Your task to perform on an android device: Go to battery settings Image 0: 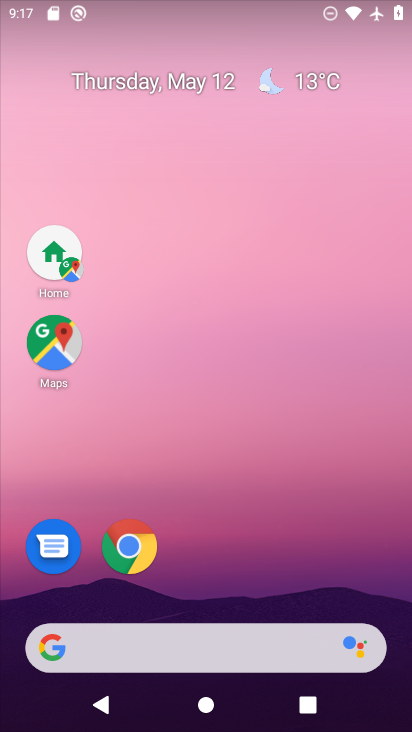
Step 0: drag from (207, 650) to (411, 83)
Your task to perform on an android device: Go to battery settings Image 1: 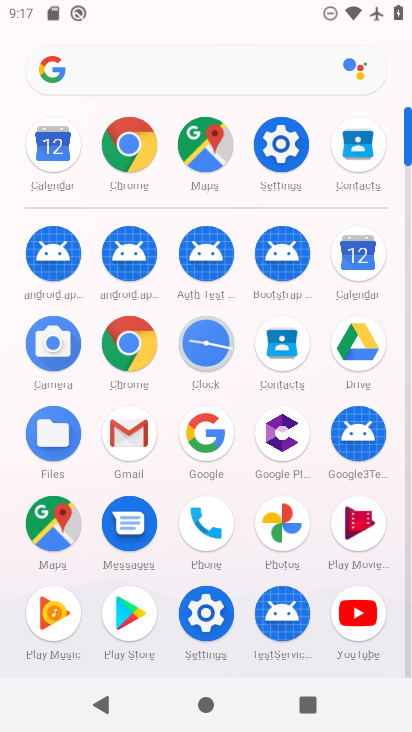
Step 1: click (279, 154)
Your task to perform on an android device: Go to battery settings Image 2: 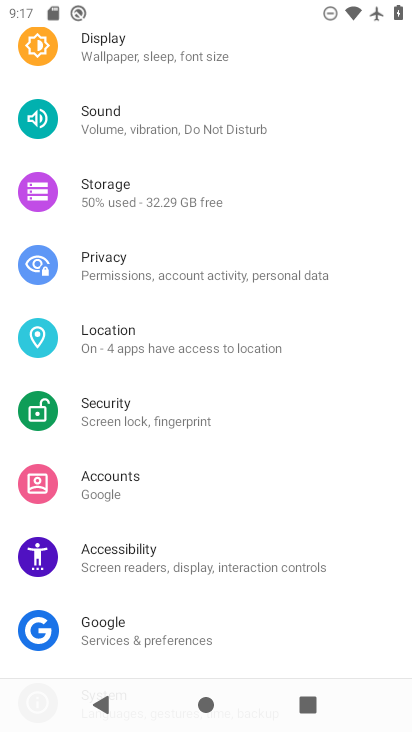
Step 2: drag from (270, 173) to (206, 575)
Your task to perform on an android device: Go to battery settings Image 3: 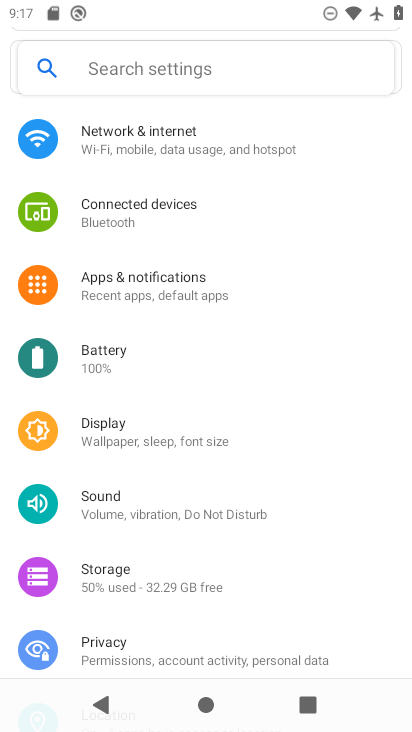
Step 3: drag from (159, 574) to (266, 195)
Your task to perform on an android device: Go to battery settings Image 4: 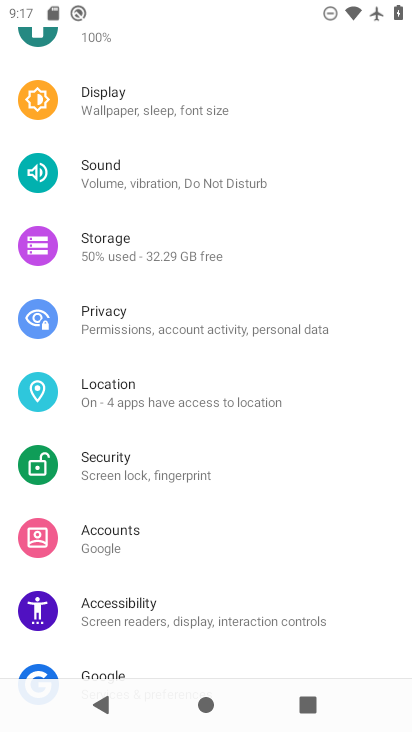
Step 4: drag from (201, 583) to (178, 618)
Your task to perform on an android device: Go to battery settings Image 5: 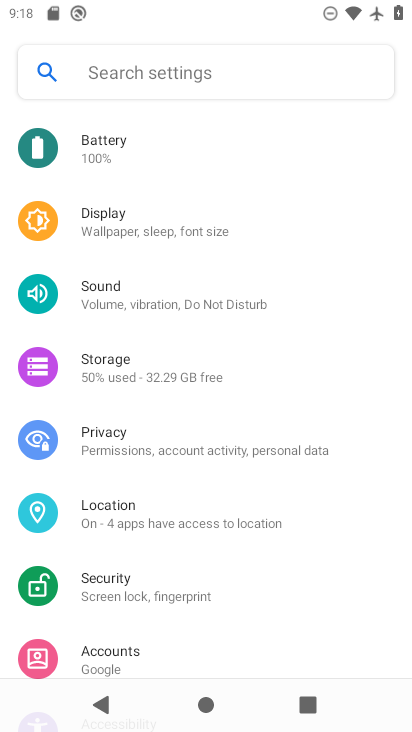
Step 5: drag from (306, 185) to (250, 471)
Your task to perform on an android device: Go to battery settings Image 6: 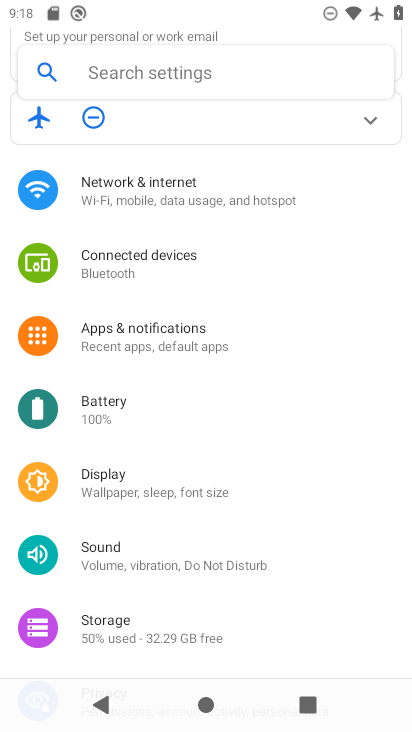
Step 6: click (121, 397)
Your task to perform on an android device: Go to battery settings Image 7: 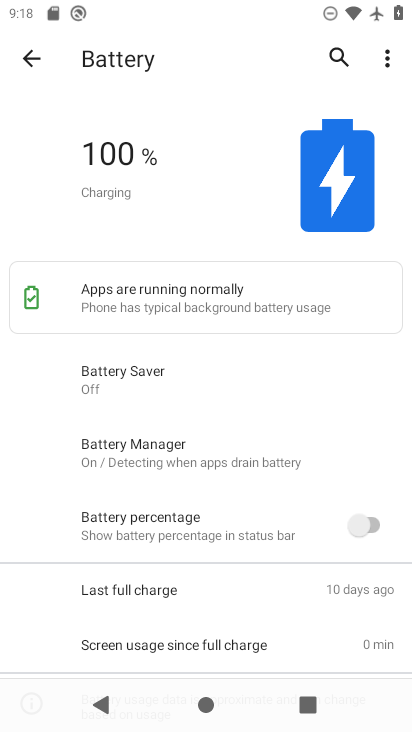
Step 7: task complete